Your task to perform on an android device: change the clock display to digital Image 0: 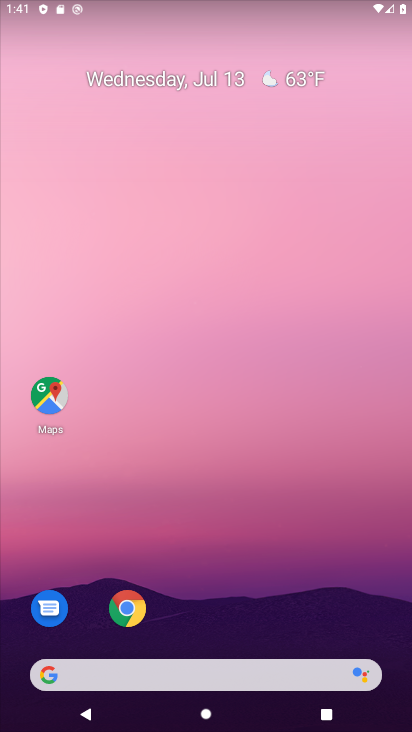
Step 0: drag from (291, 638) to (250, 13)
Your task to perform on an android device: change the clock display to digital Image 1: 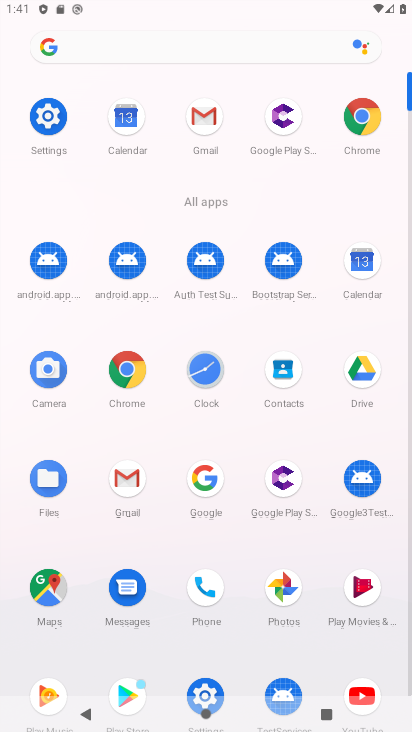
Step 1: click (209, 361)
Your task to perform on an android device: change the clock display to digital Image 2: 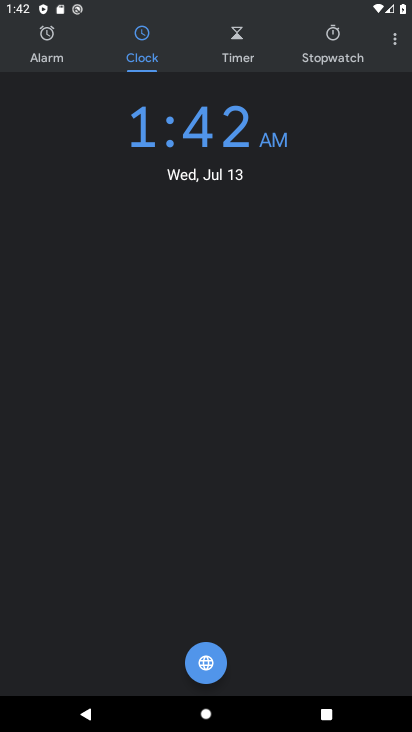
Step 2: click (404, 51)
Your task to perform on an android device: change the clock display to digital Image 3: 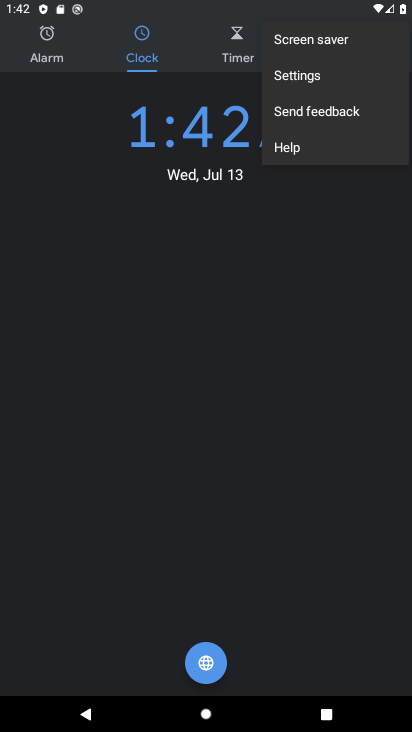
Step 3: click (311, 84)
Your task to perform on an android device: change the clock display to digital Image 4: 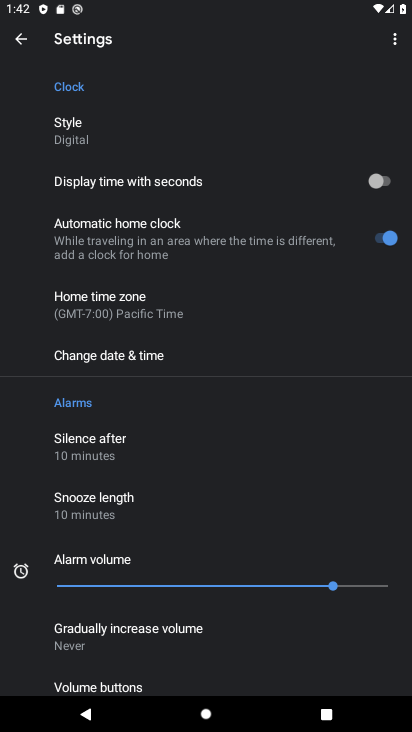
Step 4: task complete